Your task to perform on an android device: Open the web browser Image 0: 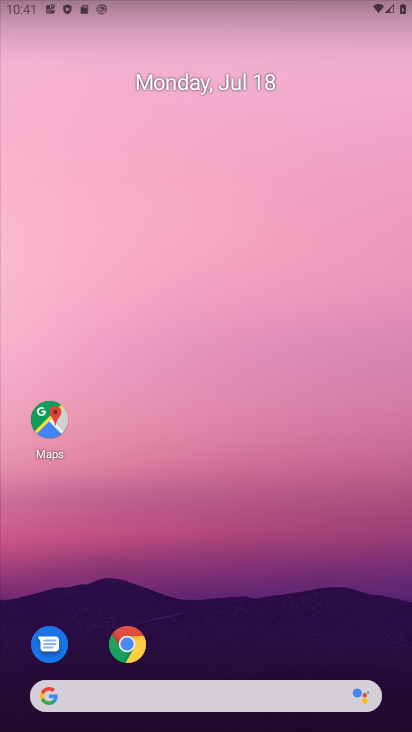
Step 0: drag from (229, 663) to (248, 123)
Your task to perform on an android device: Open the web browser Image 1: 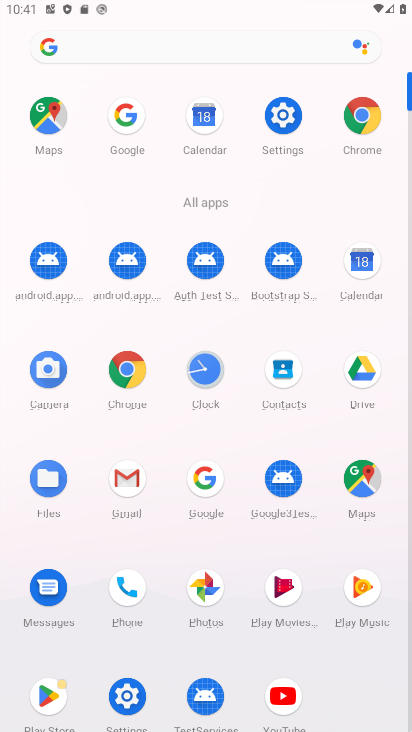
Step 1: click (203, 480)
Your task to perform on an android device: Open the web browser Image 2: 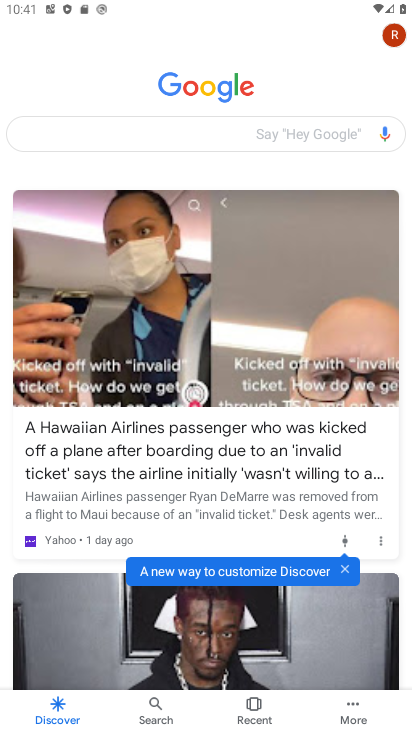
Step 2: task complete